Your task to perform on an android device: Open ESPN.com Image 0: 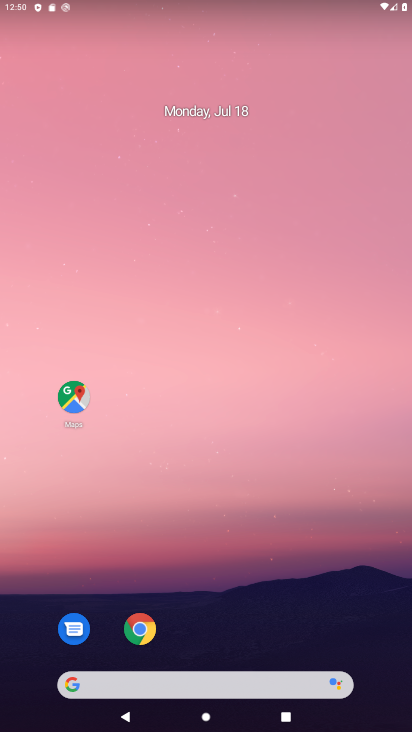
Step 0: click (148, 693)
Your task to perform on an android device: Open ESPN.com Image 1: 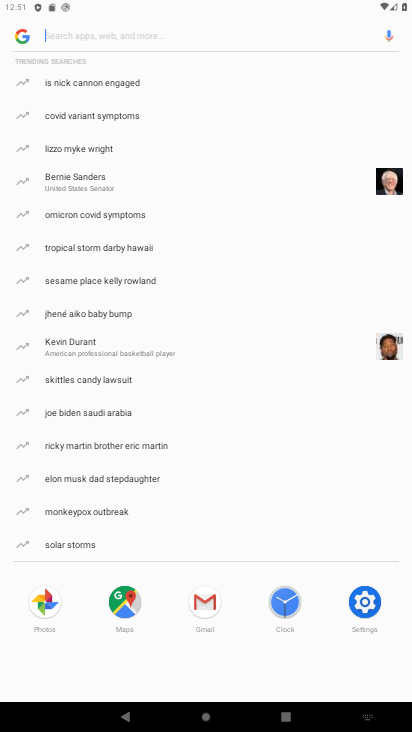
Step 1: type "espn"
Your task to perform on an android device: Open ESPN.com Image 2: 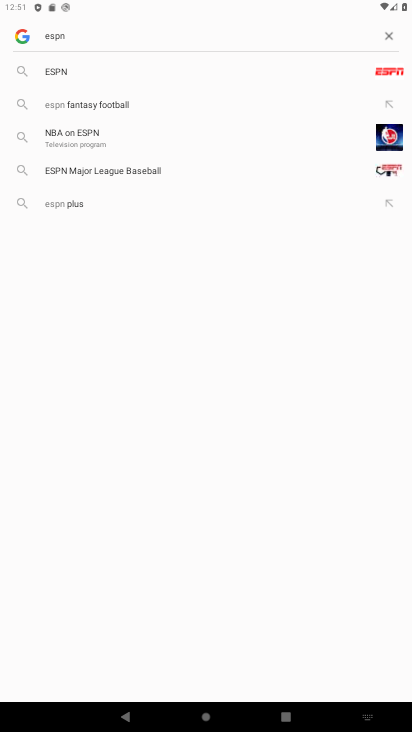
Step 2: click (98, 74)
Your task to perform on an android device: Open ESPN.com Image 3: 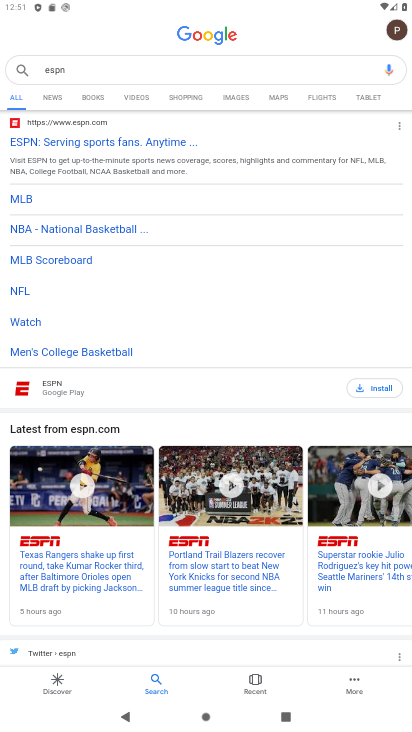
Step 3: click (39, 140)
Your task to perform on an android device: Open ESPN.com Image 4: 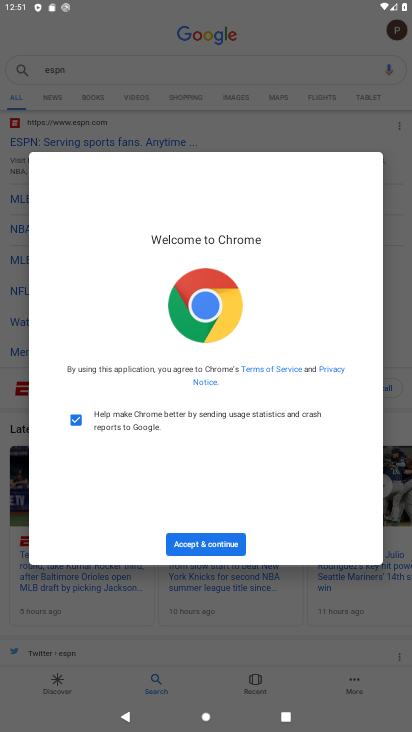
Step 4: click (222, 550)
Your task to perform on an android device: Open ESPN.com Image 5: 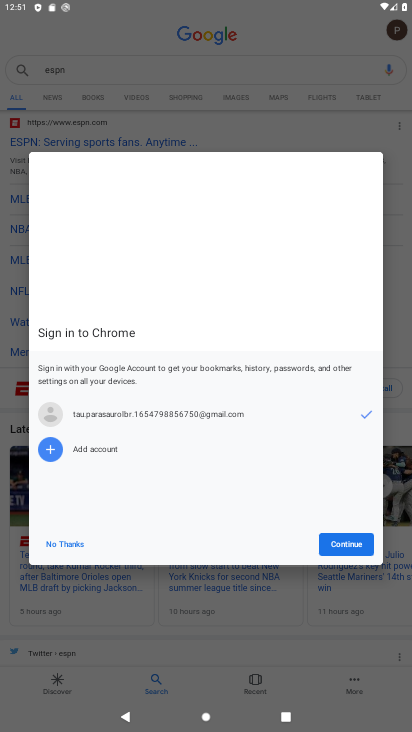
Step 5: click (362, 550)
Your task to perform on an android device: Open ESPN.com Image 6: 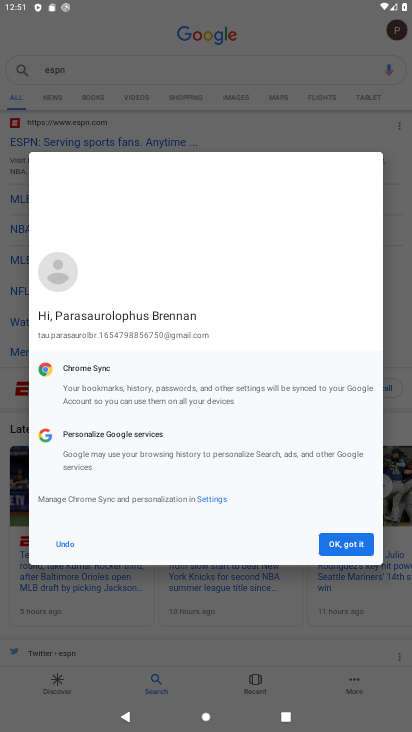
Step 6: click (362, 550)
Your task to perform on an android device: Open ESPN.com Image 7: 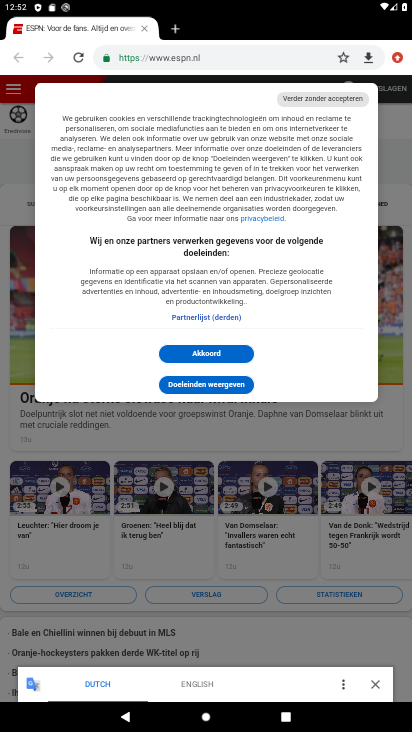
Step 7: task complete